Your task to perform on an android device: set the stopwatch Image 0: 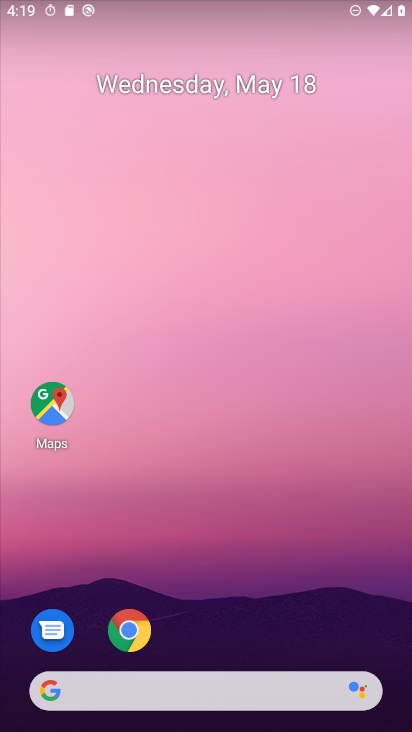
Step 0: drag from (227, 643) to (250, 144)
Your task to perform on an android device: set the stopwatch Image 1: 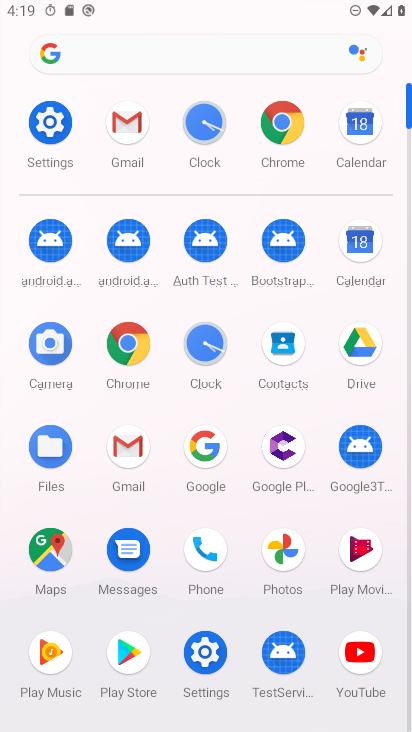
Step 1: click (200, 335)
Your task to perform on an android device: set the stopwatch Image 2: 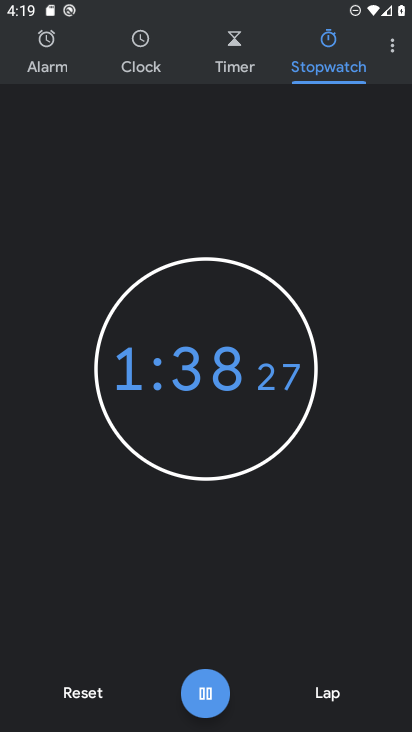
Step 2: click (94, 686)
Your task to perform on an android device: set the stopwatch Image 3: 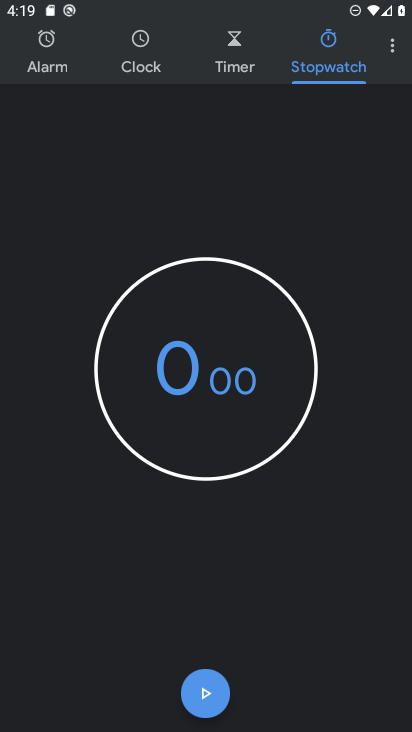
Step 3: click (198, 687)
Your task to perform on an android device: set the stopwatch Image 4: 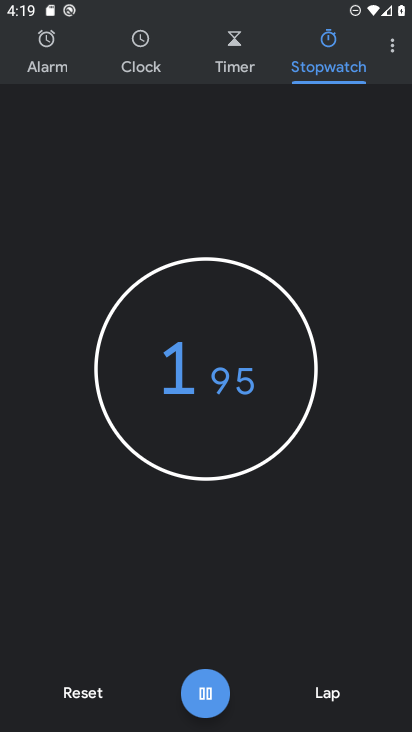
Step 4: task complete